Your task to perform on an android device: Toggle the flashlight Image 0: 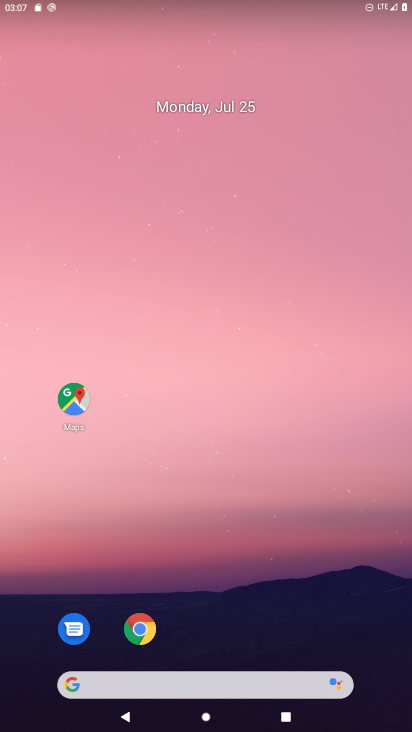
Step 0: drag from (292, 610) to (257, 1)
Your task to perform on an android device: Toggle the flashlight Image 1: 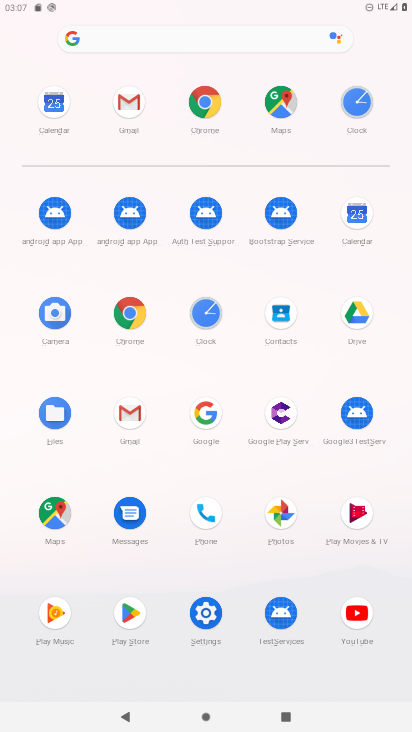
Step 1: task complete